Your task to perform on an android device: What's the price of the new iPhone on eBay? Image 0: 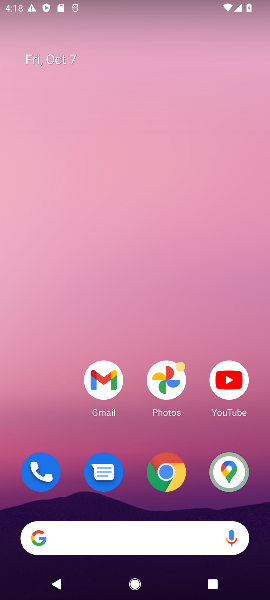
Step 0: click (176, 472)
Your task to perform on an android device: What's the price of the new iPhone on eBay? Image 1: 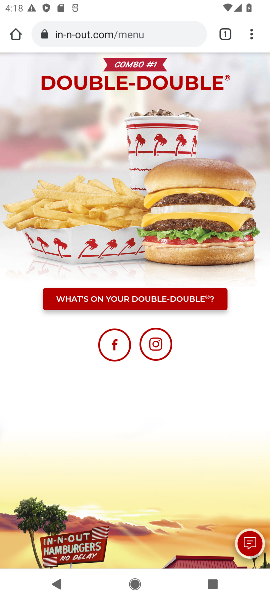
Step 1: click (120, 34)
Your task to perform on an android device: What's the price of the new iPhone on eBay? Image 2: 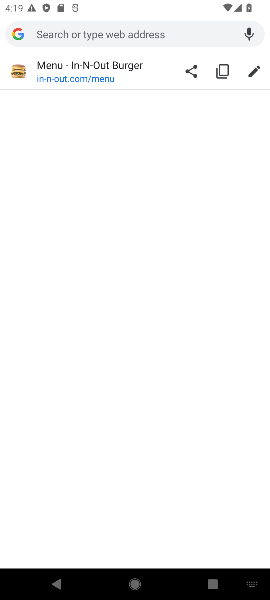
Step 2: type "new iphone on ebay"
Your task to perform on an android device: What's the price of the new iPhone on eBay? Image 3: 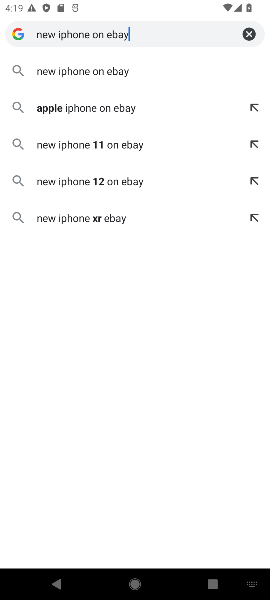
Step 3: click (152, 68)
Your task to perform on an android device: What's the price of the new iPhone on eBay? Image 4: 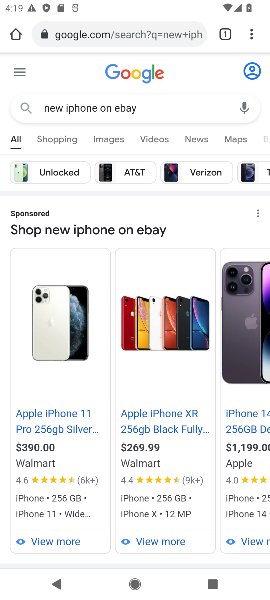
Step 4: drag from (97, 468) to (113, 212)
Your task to perform on an android device: What's the price of the new iPhone on eBay? Image 5: 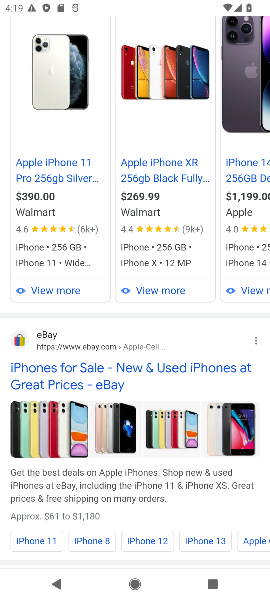
Step 5: drag from (182, 481) to (205, 232)
Your task to perform on an android device: What's the price of the new iPhone on eBay? Image 6: 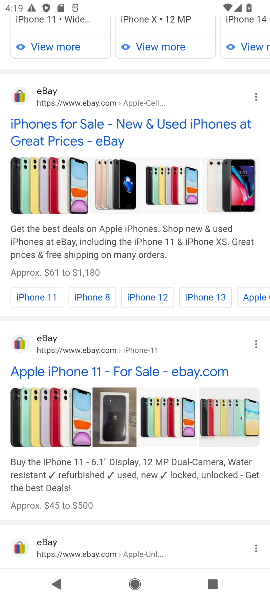
Step 6: click (132, 126)
Your task to perform on an android device: What's the price of the new iPhone on eBay? Image 7: 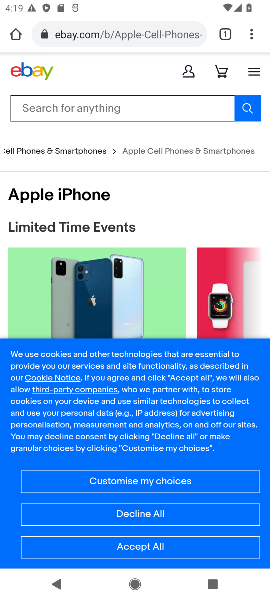
Step 7: click (139, 552)
Your task to perform on an android device: What's the price of the new iPhone on eBay? Image 8: 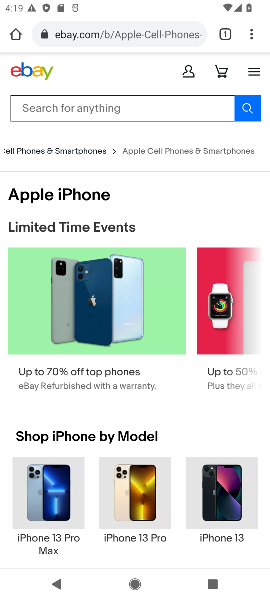
Step 8: drag from (174, 422) to (172, 233)
Your task to perform on an android device: What's the price of the new iPhone on eBay? Image 9: 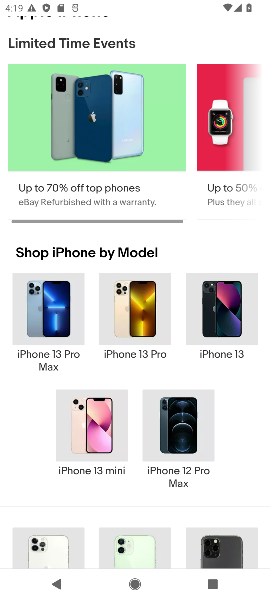
Step 9: drag from (223, 470) to (199, 120)
Your task to perform on an android device: What's the price of the new iPhone on eBay? Image 10: 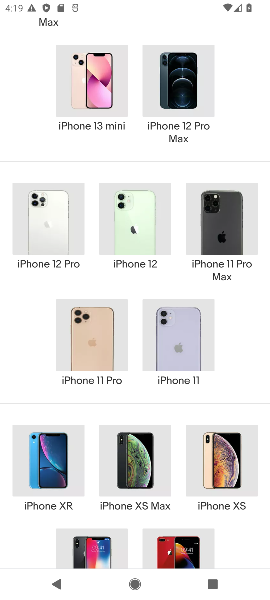
Step 10: drag from (212, 301) to (269, 582)
Your task to perform on an android device: What's the price of the new iPhone on eBay? Image 11: 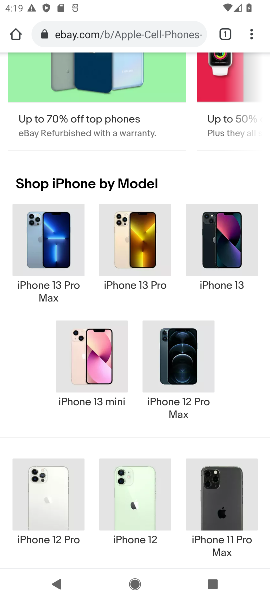
Step 11: drag from (204, 178) to (195, 379)
Your task to perform on an android device: What's the price of the new iPhone on eBay? Image 12: 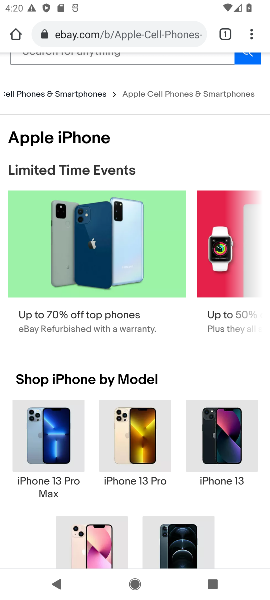
Step 12: drag from (205, 161) to (182, 389)
Your task to perform on an android device: What's the price of the new iPhone on eBay? Image 13: 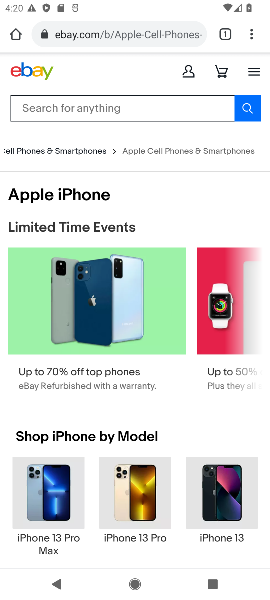
Step 13: click (54, 498)
Your task to perform on an android device: What's the price of the new iPhone on eBay? Image 14: 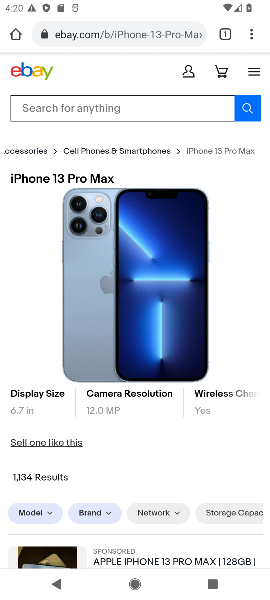
Step 14: drag from (167, 418) to (163, 329)
Your task to perform on an android device: What's the price of the new iPhone on eBay? Image 15: 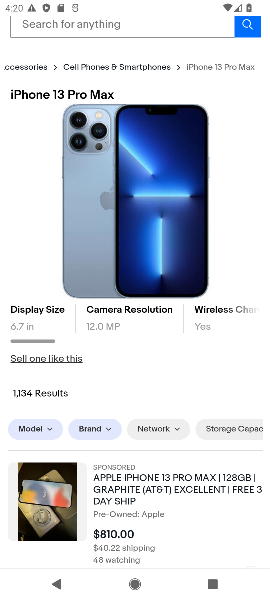
Step 15: drag from (236, 440) to (0, 434)
Your task to perform on an android device: What's the price of the new iPhone on eBay? Image 16: 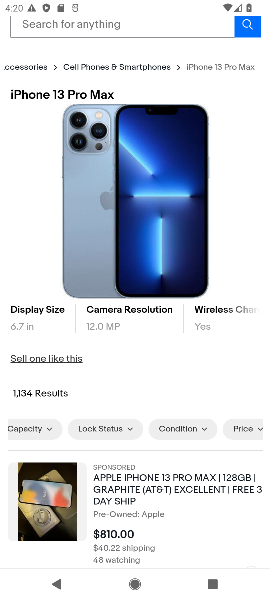
Step 16: drag from (211, 439) to (146, 430)
Your task to perform on an android device: What's the price of the new iPhone on eBay? Image 17: 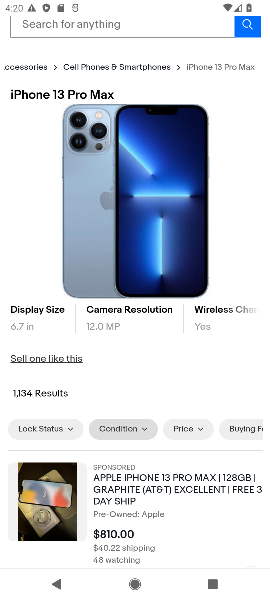
Step 17: click (135, 431)
Your task to perform on an android device: What's the price of the new iPhone on eBay? Image 18: 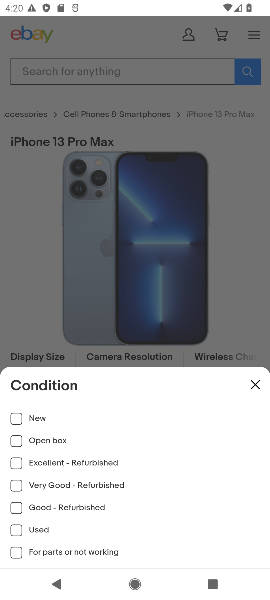
Step 18: click (15, 415)
Your task to perform on an android device: What's the price of the new iPhone on eBay? Image 19: 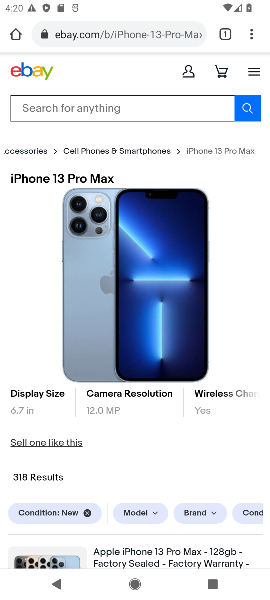
Step 19: task complete